Your task to perform on an android device: Open Google Chrome and open the bookmarks view Image 0: 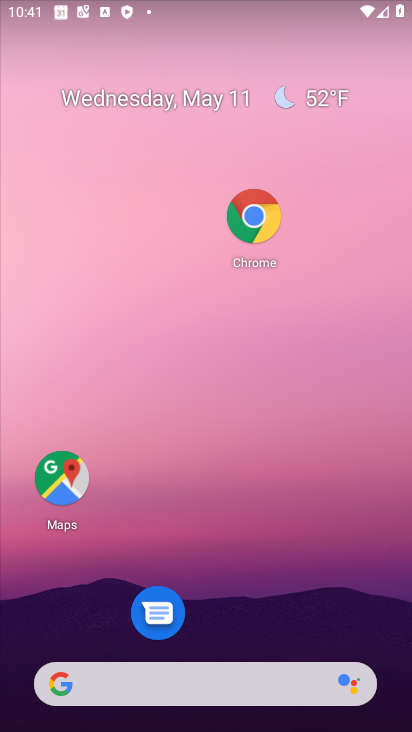
Step 0: drag from (234, 633) to (165, 245)
Your task to perform on an android device: Open Google Chrome and open the bookmarks view Image 1: 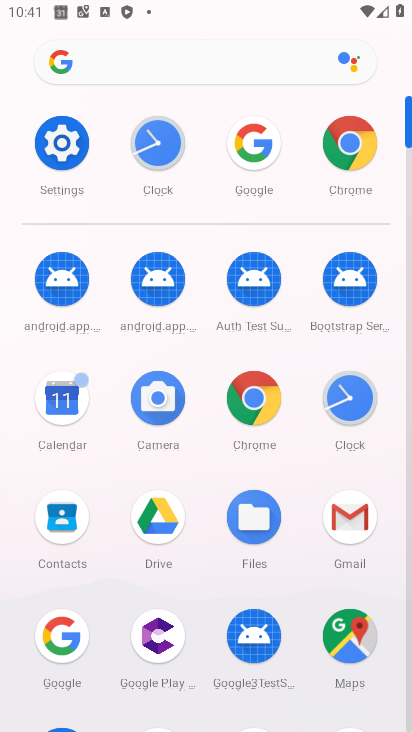
Step 1: click (353, 172)
Your task to perform on an android device: Open Google Chrome and open the bookmarks view Image 2: 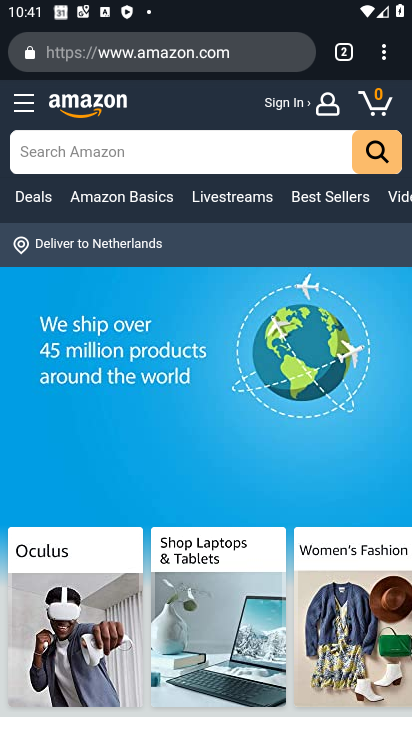
Step 2: click (386, 67)
Your task to perform on an android device: Open Google Chrome and open the bookmarks view Image 3: 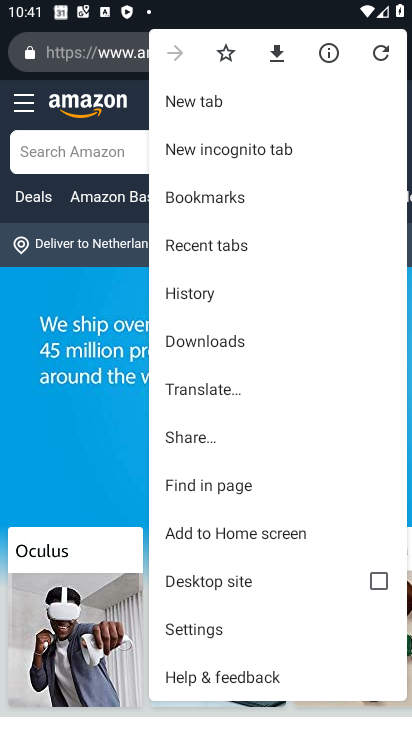
Step 3: click (273, 203)
Your task to perform on an android device: Open Google Chrome and open the bookmarks view Image 4: 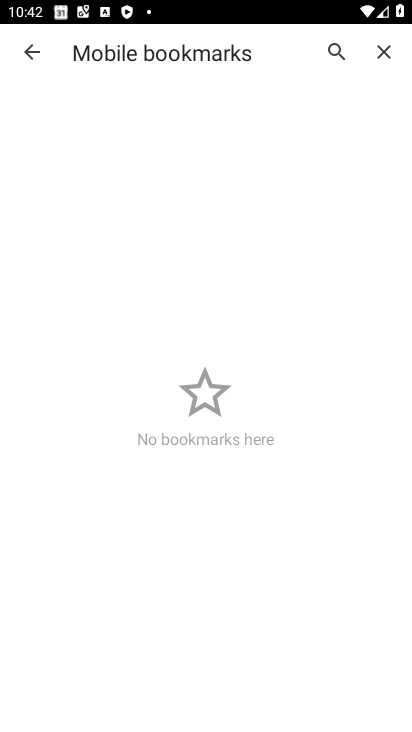
Step 4: task complete